Your task to perform on an android device: uninstall "Nova Launcher" Image 0: 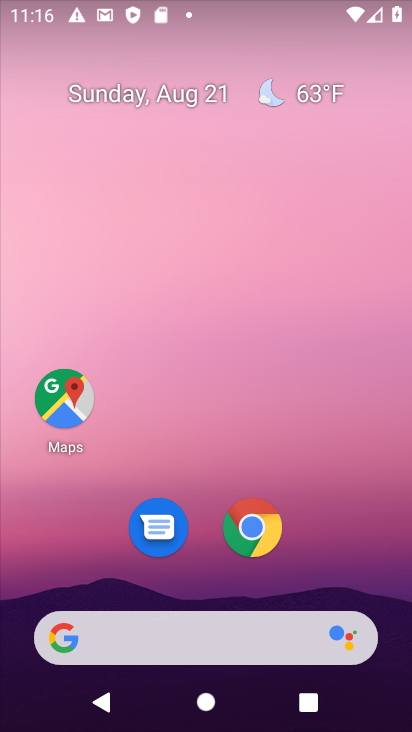
Step 0: drag from (214, 600) to (276, 51)
Your task to perform on an android device: uninstall "Nova Launcher" Image 1: 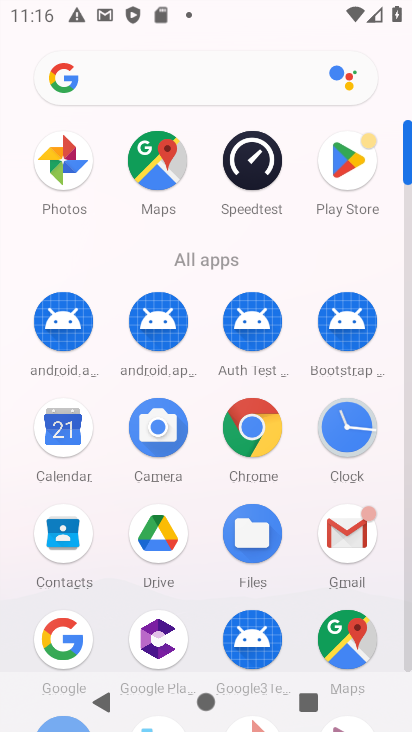
Step 1: click (348, 165)
Your task to perform on an android device: uninstall "Nova Launcher" Image 2: 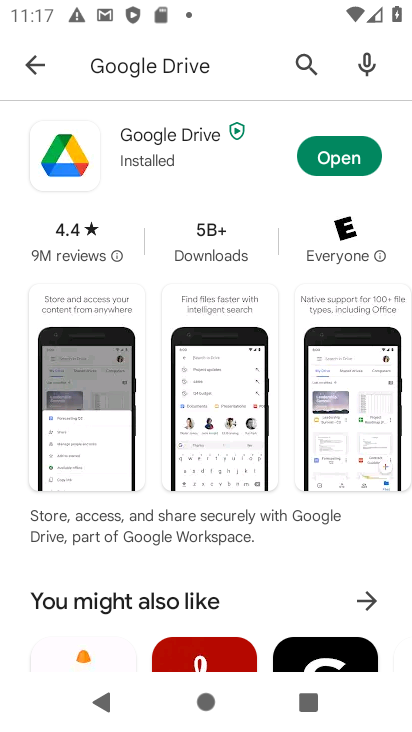
Step 2: press back button
Your task to perform on an android device: uninstall "Nova Launcher" Image 3: 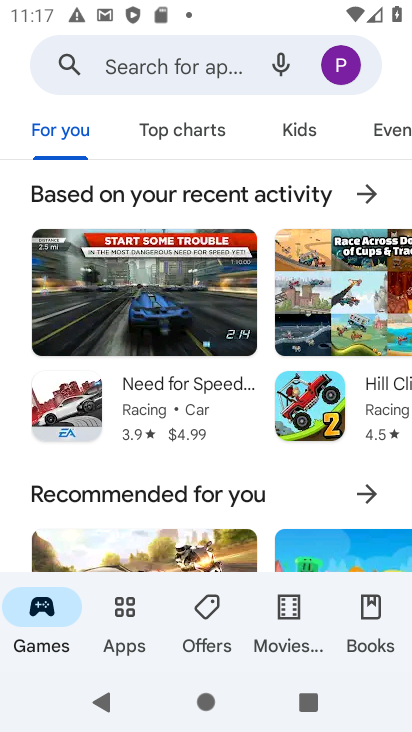
Step 3: type "Nova Launcher"
Your task to perform on an android device: uninstall "Nova Launcher" Image 4: 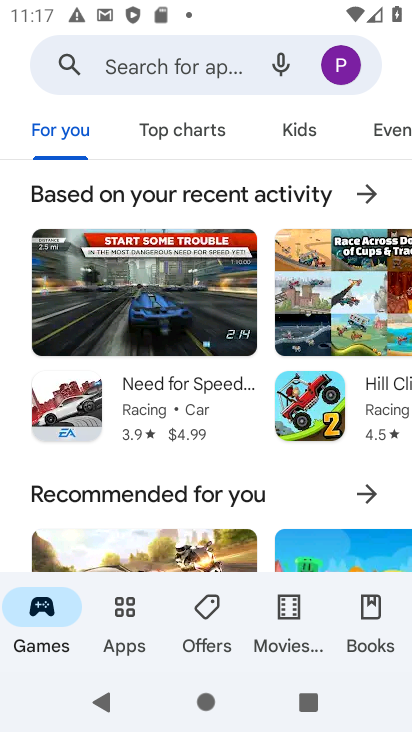
Step 4: press enter
Your task to perform on an android device: uninstall "Nova Launcher" Image 5: 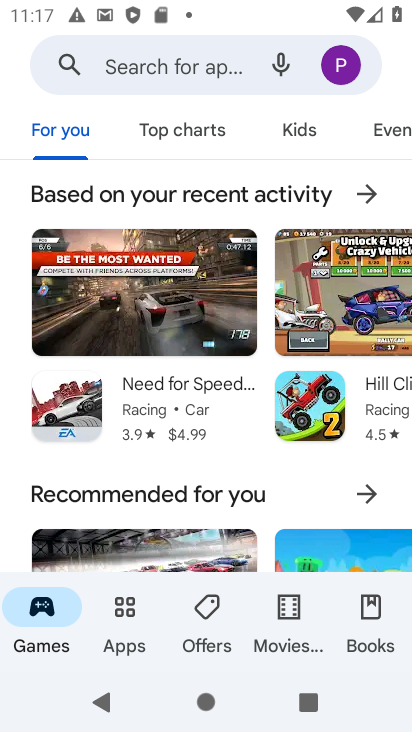
Step 5: click (238, 63)
Your task to perform on an android device: uninstall "Nova Launcher" Image 6: 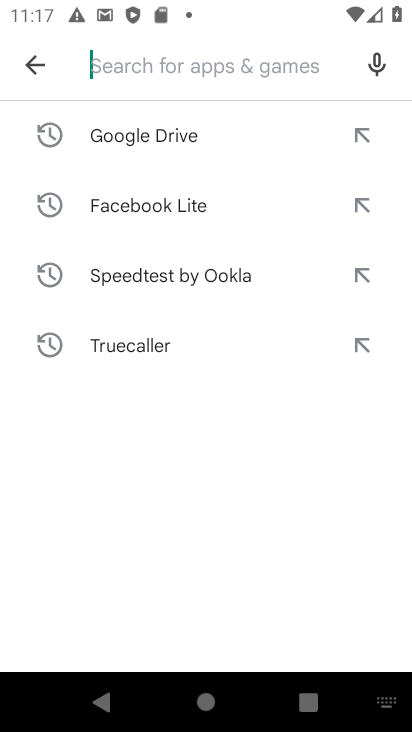
Step 6: type "Nova Launcher"
Your task to perform on an android device: uninstall "Nova Launcher" Image 7: 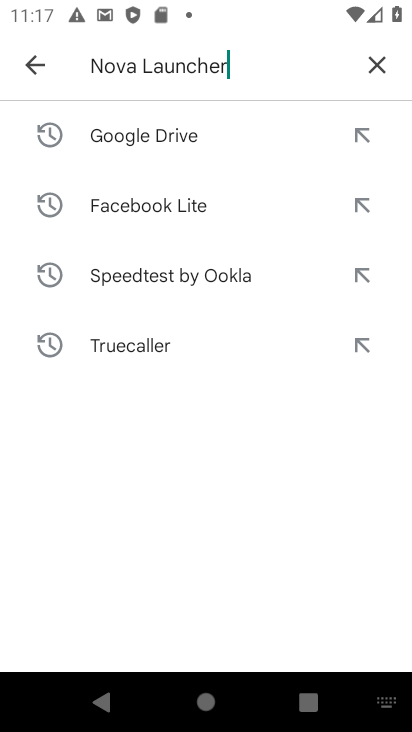
Step 7: press enter
Your task to perform on an android device: uninstall "Nova Launcher" Image 8: 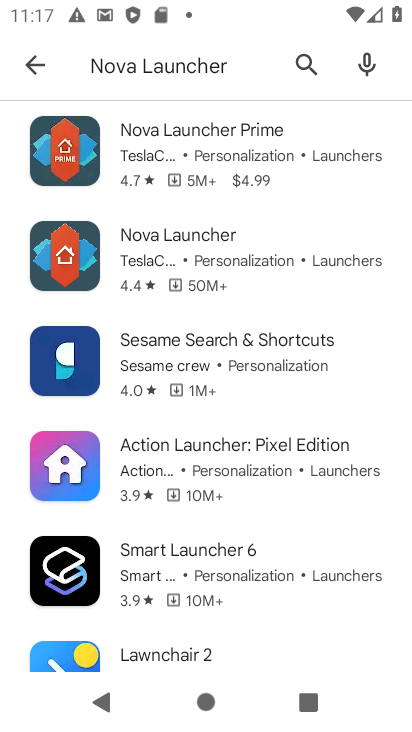
Step 8: task complete